Your task to perform on an android device: change keyboard looks Image 0: 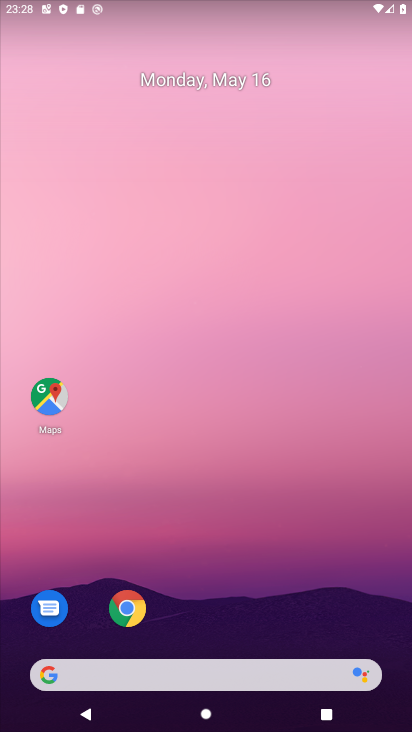
Step 0: drag from (165, 685) to (207, 260)
Your task to perform on an android device: change keyboard looks Image 1: 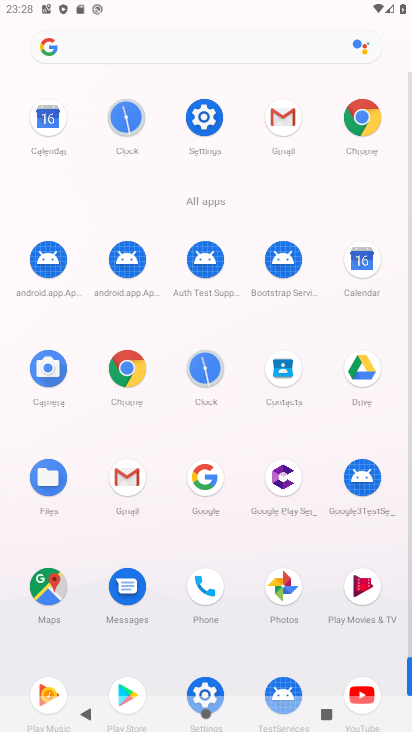
Step 1: click (209, 117)
Your task to perform on an android device: change keyboard looks Image 2: 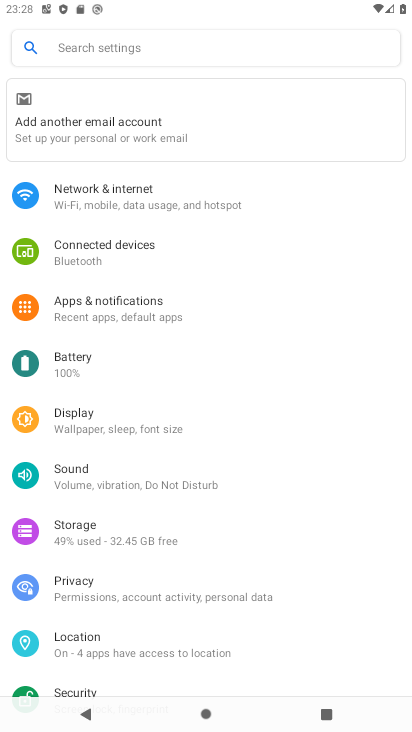
Step 2: drag from (261, 632) to (248, 210)
Your task to perform on an android device: change keyboard looks Image 3: 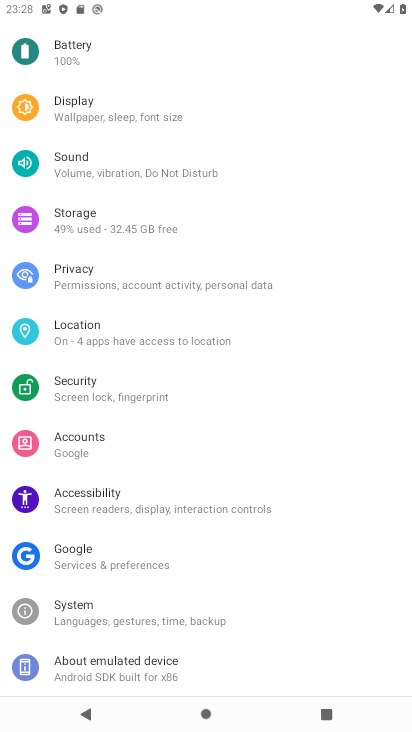
Step 3: click (116, 610)
Your task to perform on an android device: change keyboard looks Image 4: 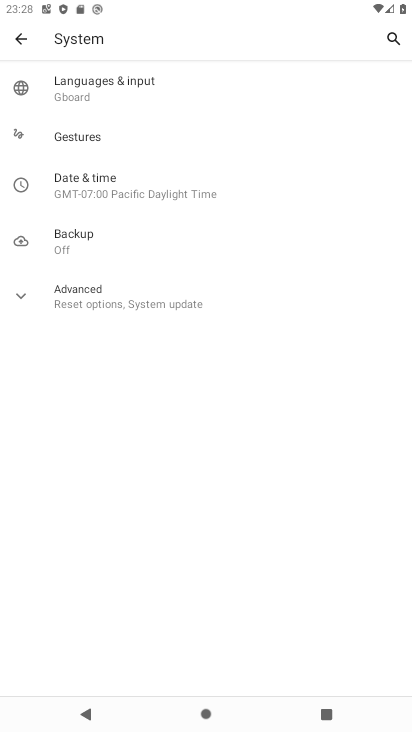
Step 4: click (102, 88)
Your task to perform on an android device: change keyboard looks Image 5: 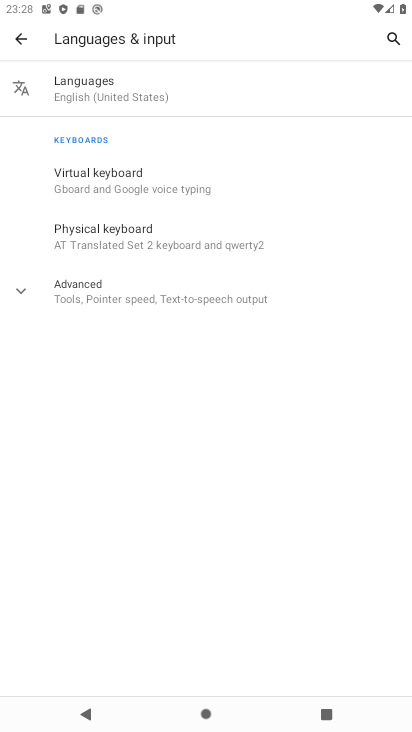
Step 5: click (120, 178)
Your task to perform on an android device: change keyboard looks Image 6: 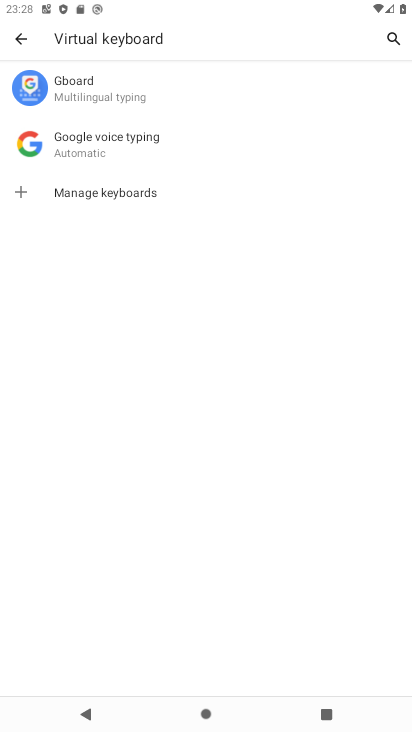
Step 6: click (101, 88)
Your task to perform on an android device: change keyboard looks Image 7: 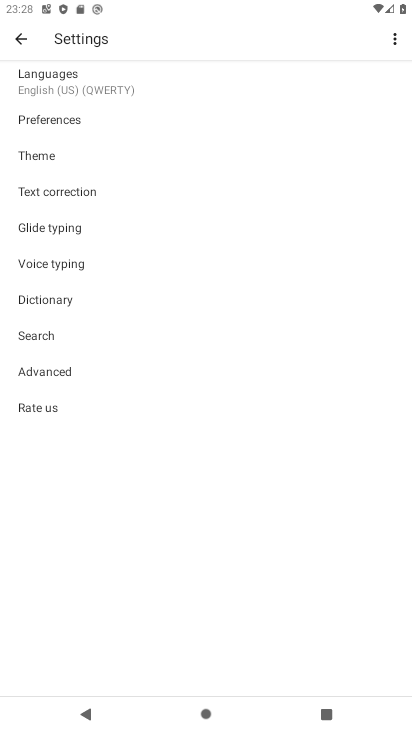
Step 7: click (29, 154)
Your task to perform on an android device: change keyboard looks Image 8: 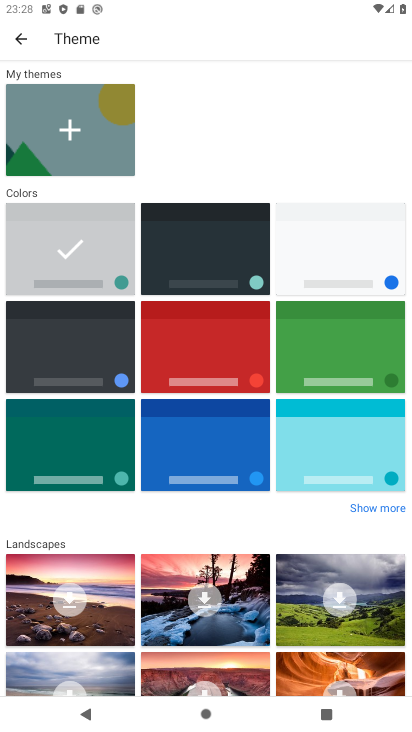
Step 8: click (228, 354)
Your task to perform on an android device: change keyboard looks Image 9: 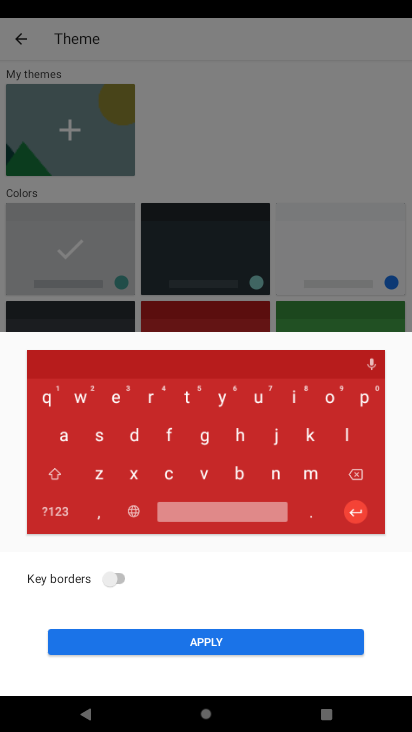
Step 9: click (252, 643)
Your task to perform on an android device: change keyboard looks Image 10: 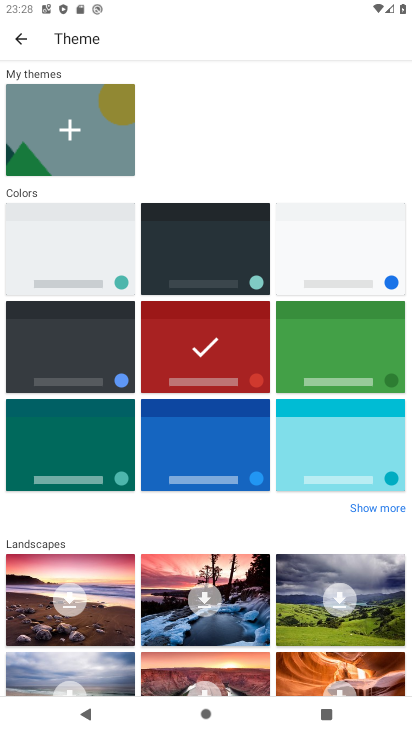
Step 10: task complete